Your task to perform on an android device: move a message to another label in the gmail app Image 0: 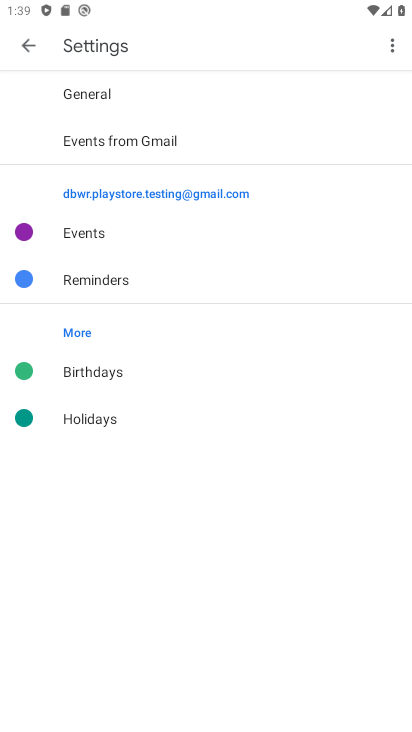
Step 0: press home button
Your task to perform on an android device: move a message to another label in the gmail app Image 1: 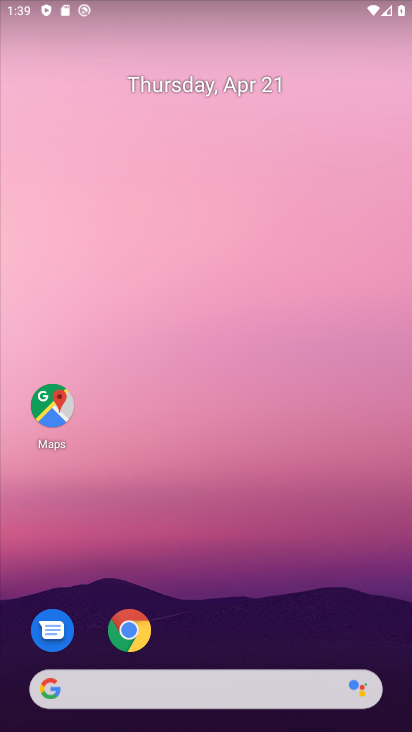
Step 1: drag from (379, 595) to (293, 30)
Your task to perform on an android device: move a message to another label in the gmail app Image 2: 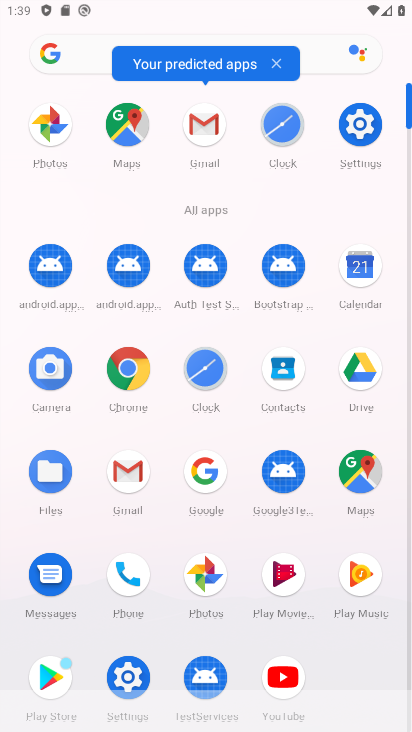
Step 2: click (198, 136)
Your task to perform on an android device: move a message to another label in the gmail app Image 3: 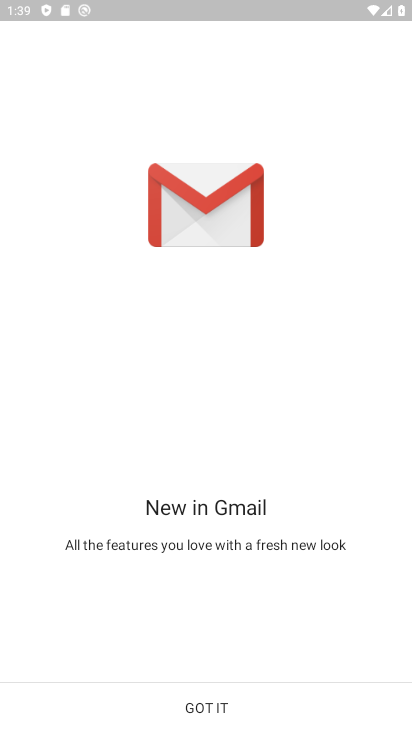
Step 3: click (207, 707)
Your task to perform on an android device: move a message to another label in the gmail app Image 4: 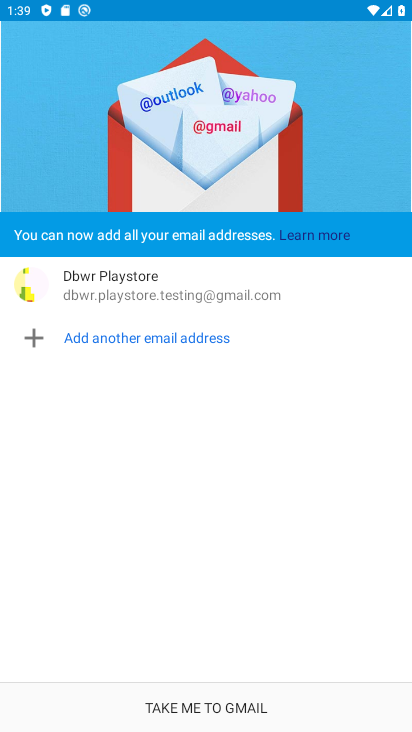
Step 4: click (198, 718)
Your task to perform on an android device: move a message to another label in the gmail app Image 5: 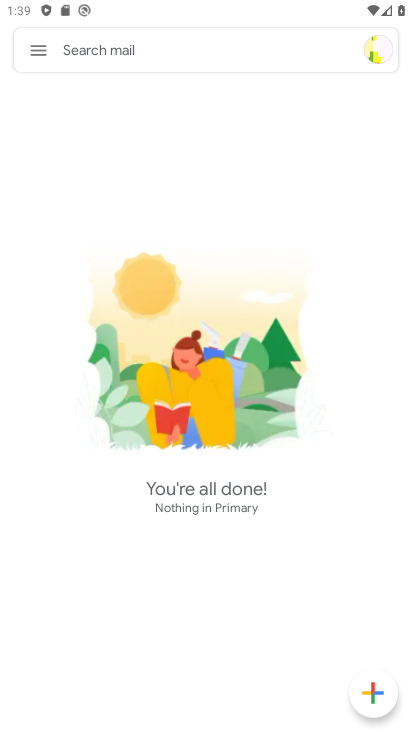
Step 5: click (32, 53)
Your task to perform on an android device: move a message to another label in the gmail app Image 6: 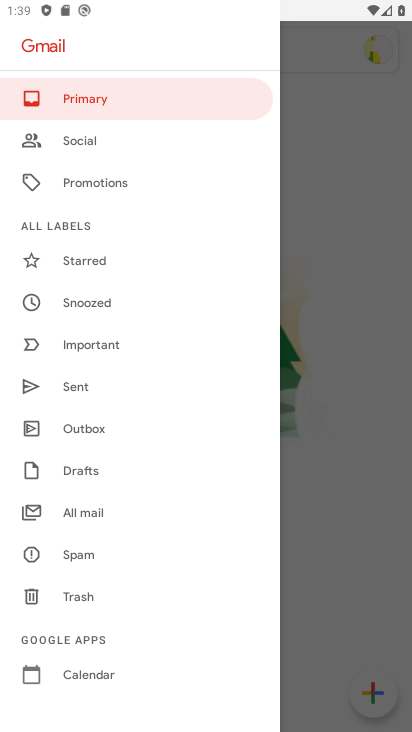
Step 6: click (100, 517)
Your task to perform on an android device: move a message to another label in the gmail app Image 7: 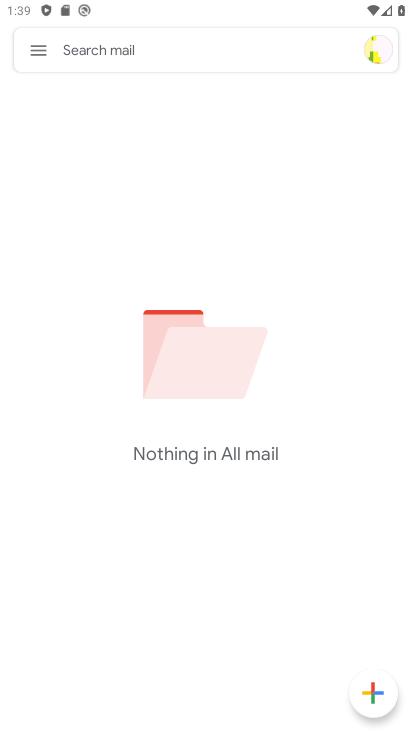
Step 7: task complete